Your task to perform on an android device: Do I have any events today? Image 0: 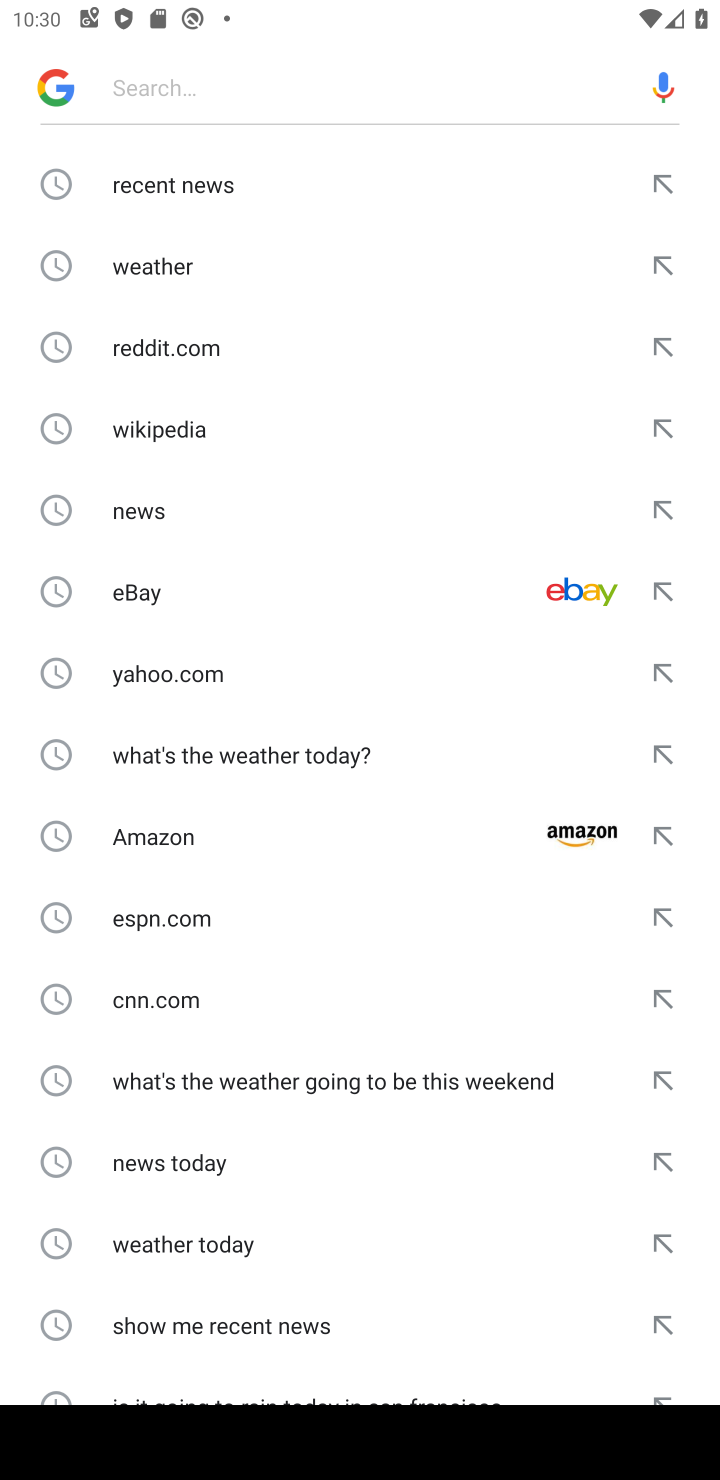
Step 0: press home button
Your task to perform on an android device: Do I have any events today? Image 1: 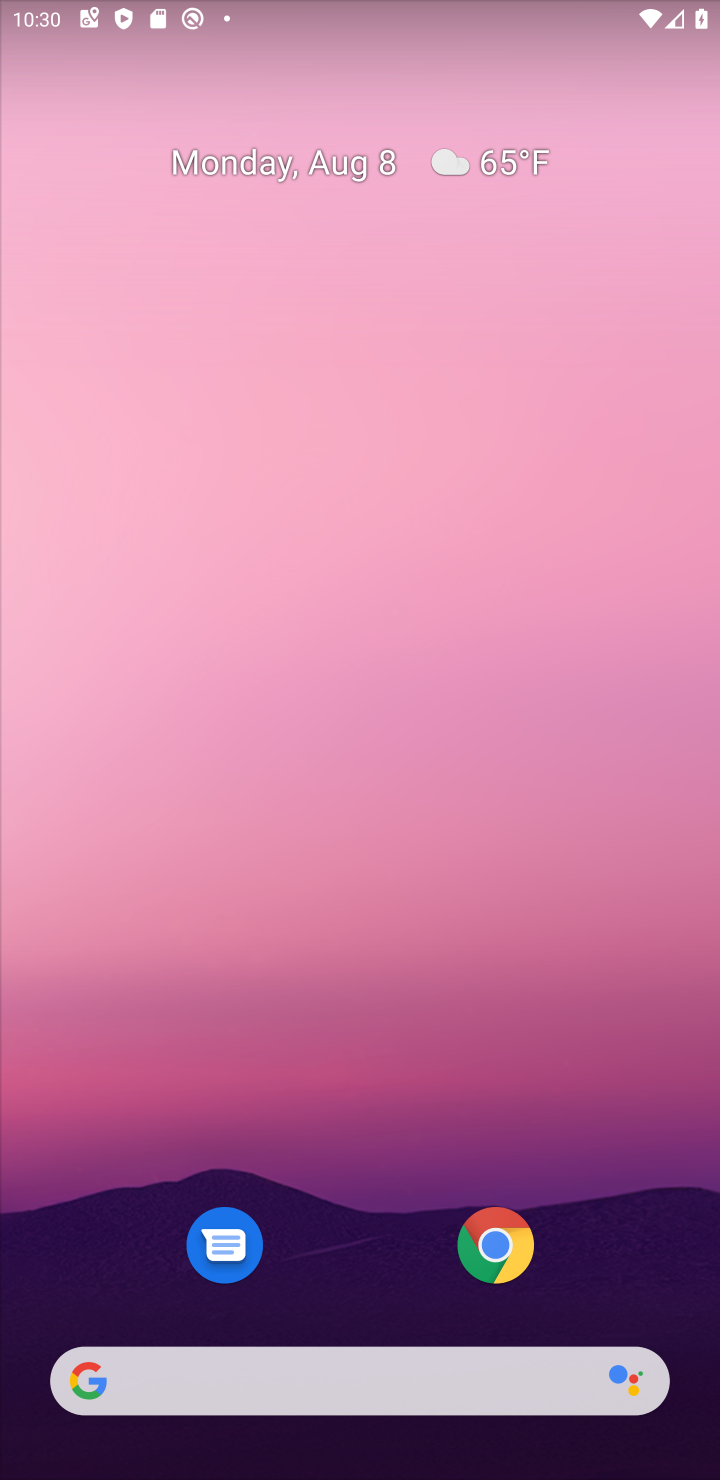
Step 1: drag from (342, 1277) to (135, 132)
Your task to perform on an android device: Do I have any events today? Image 2: 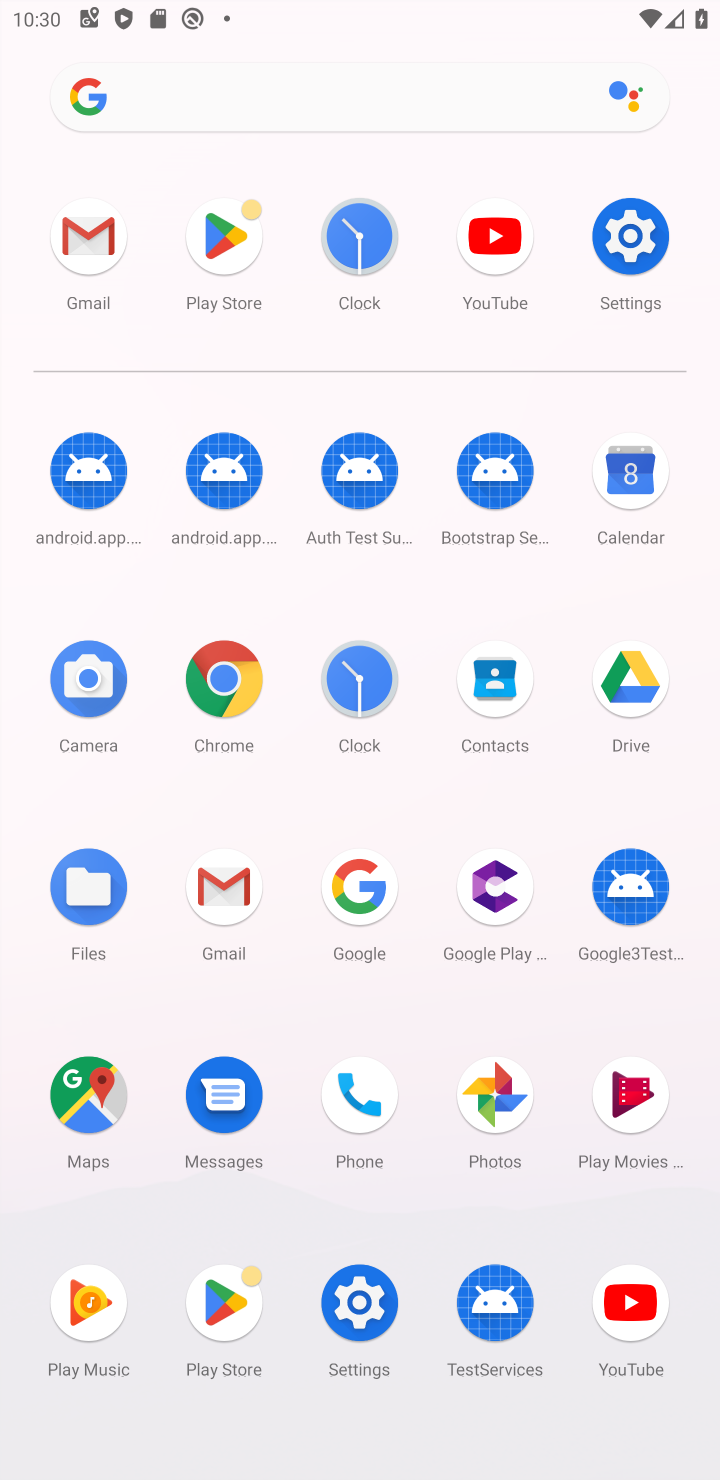
Step 2: click (630, 484)
Your task to perform on an android device: Do I have any events today? Image 3: 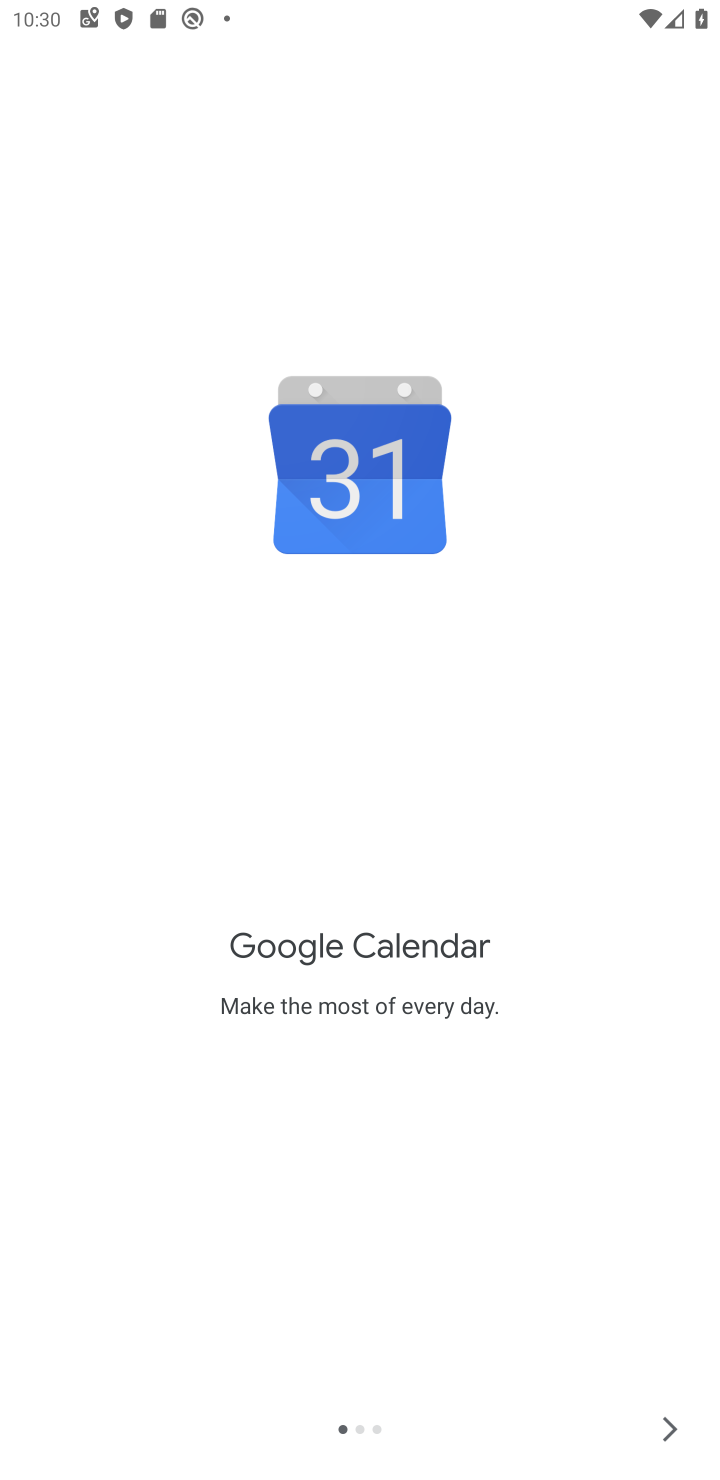
Step 3: click (675, 1424)
Your task to perform on an android device: Do I have any events today? Image 4: 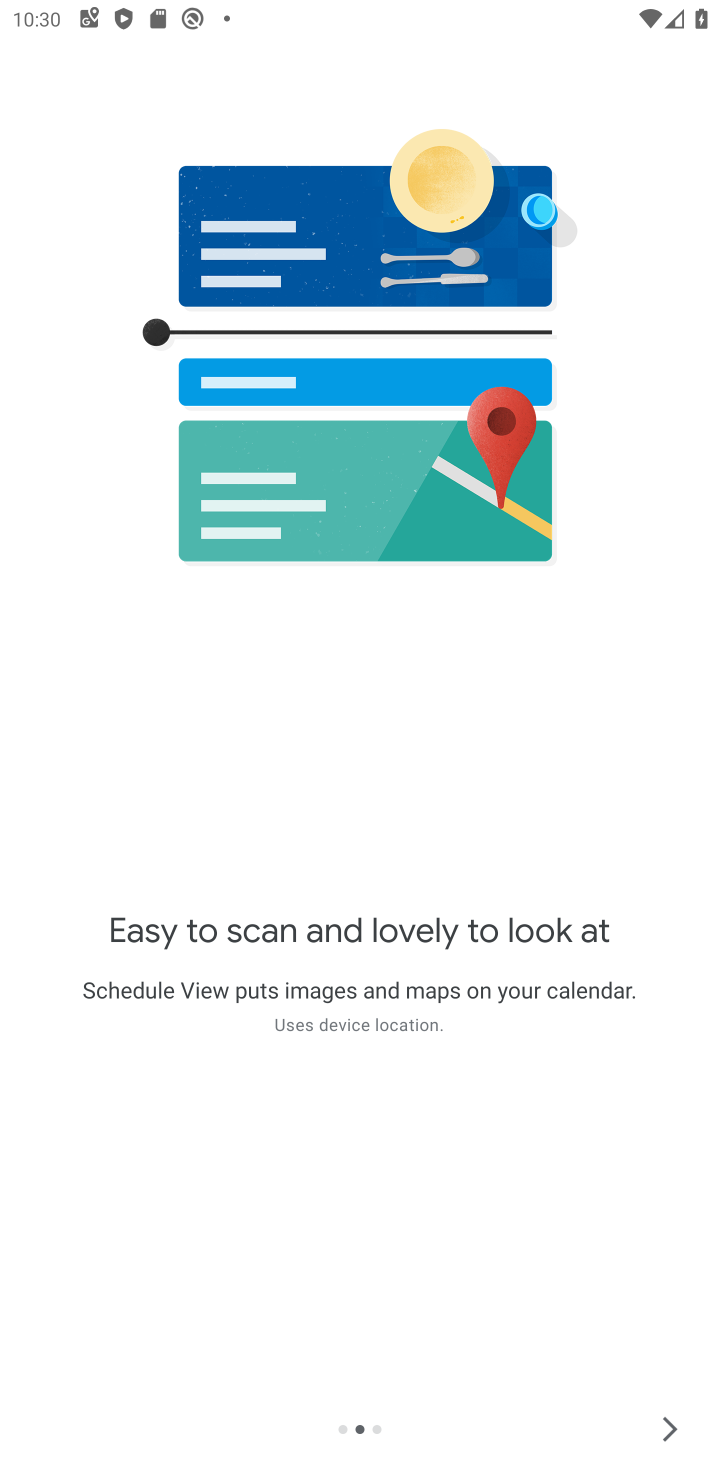
Step 4: click (675, 1424)
Your task to perform on an android device: Do I have any events today? Image 5: 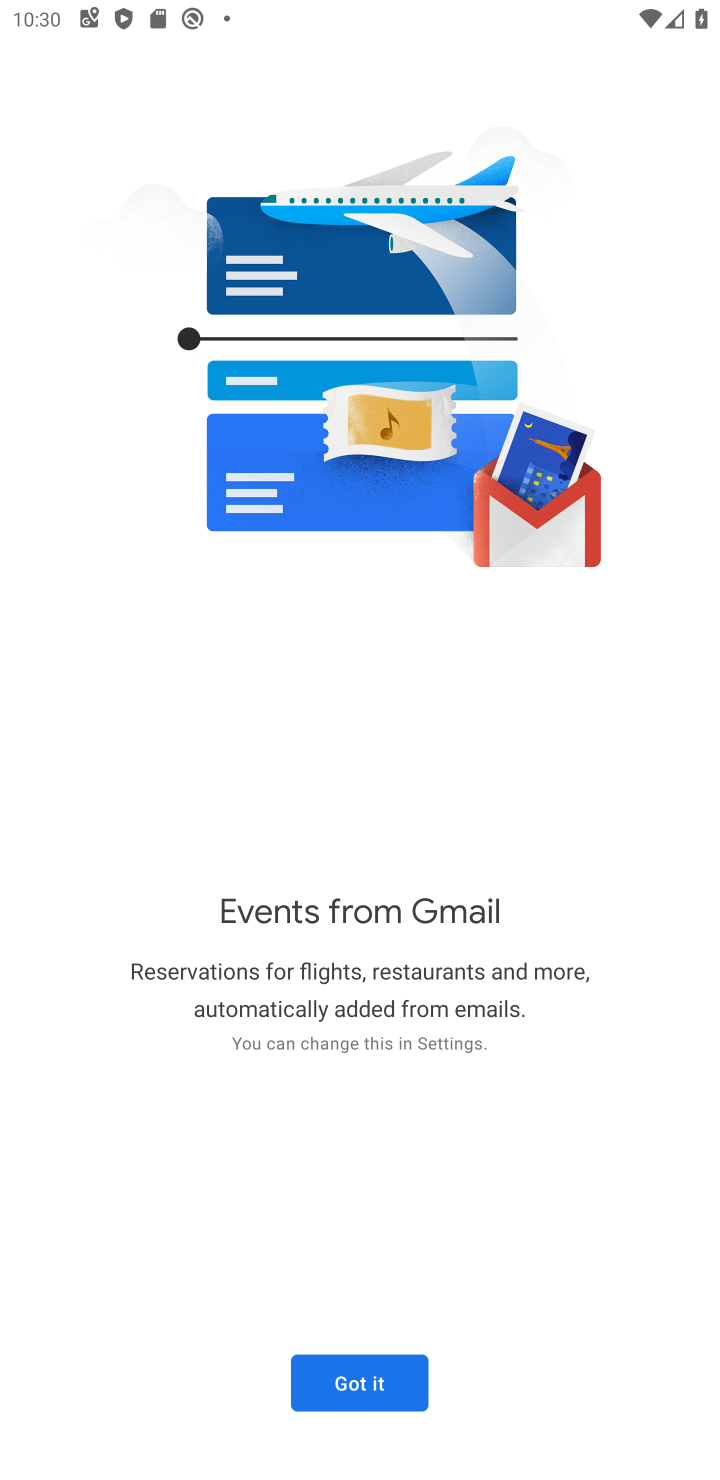
Step 5: click (365, 1367)
Your task to perform on an android device: Do I have any events today? Image 6: 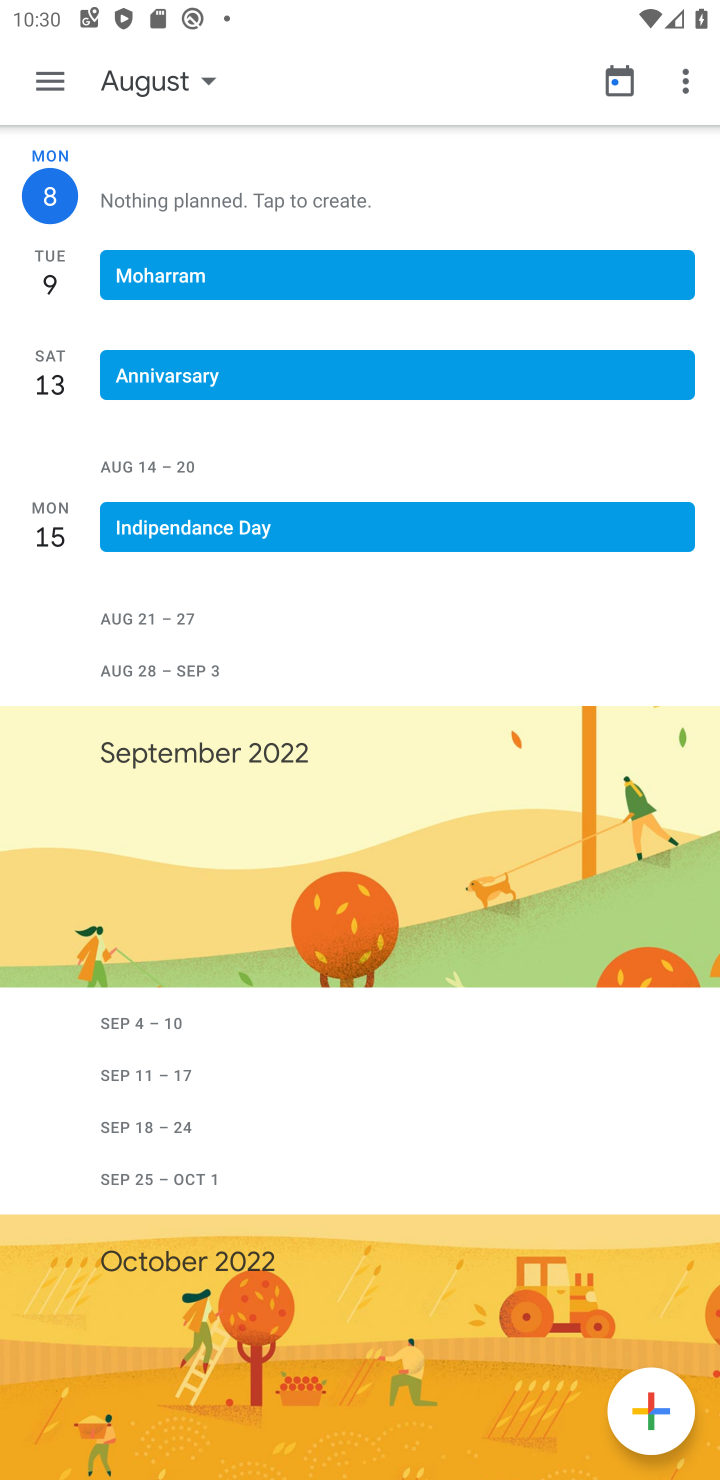
Step 6: click (45, 75)
Your task to perform on an android device: Do I have any events today? Image 7: 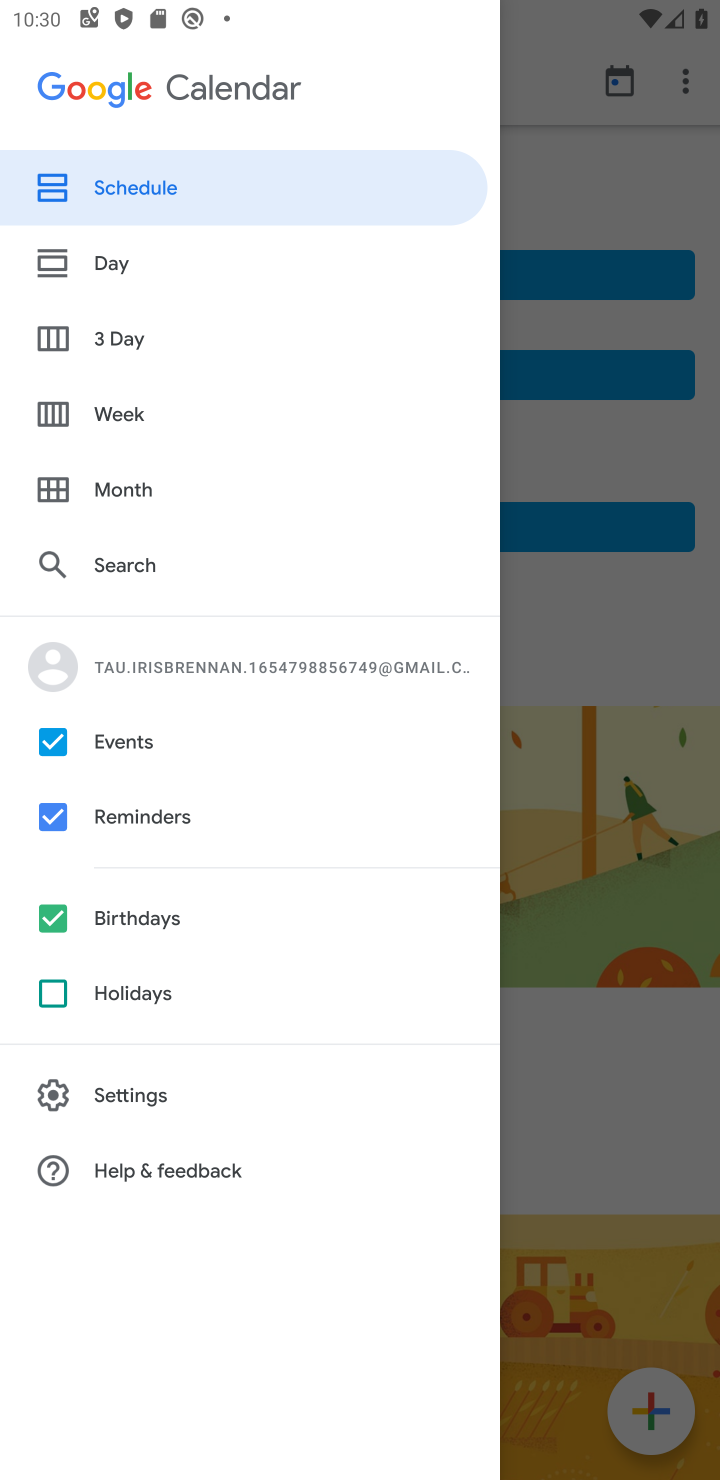
Step 7: click (110, 261)
Your task to perform on an android device: Do I have any events today? Image 8: 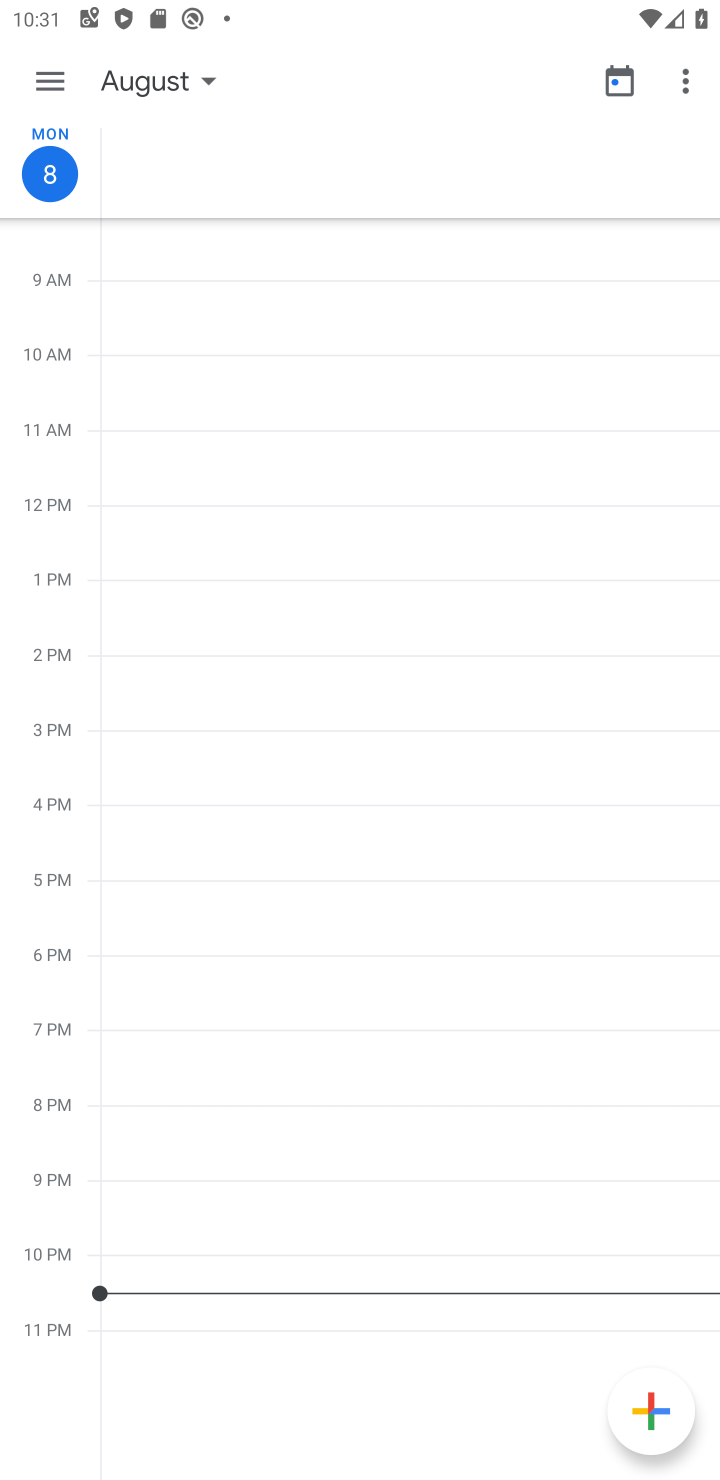
Step 8: task complete